Your task to perform on an android device: open app "LiveIn - Share Your Moment" (install if not already installed) Image 0: 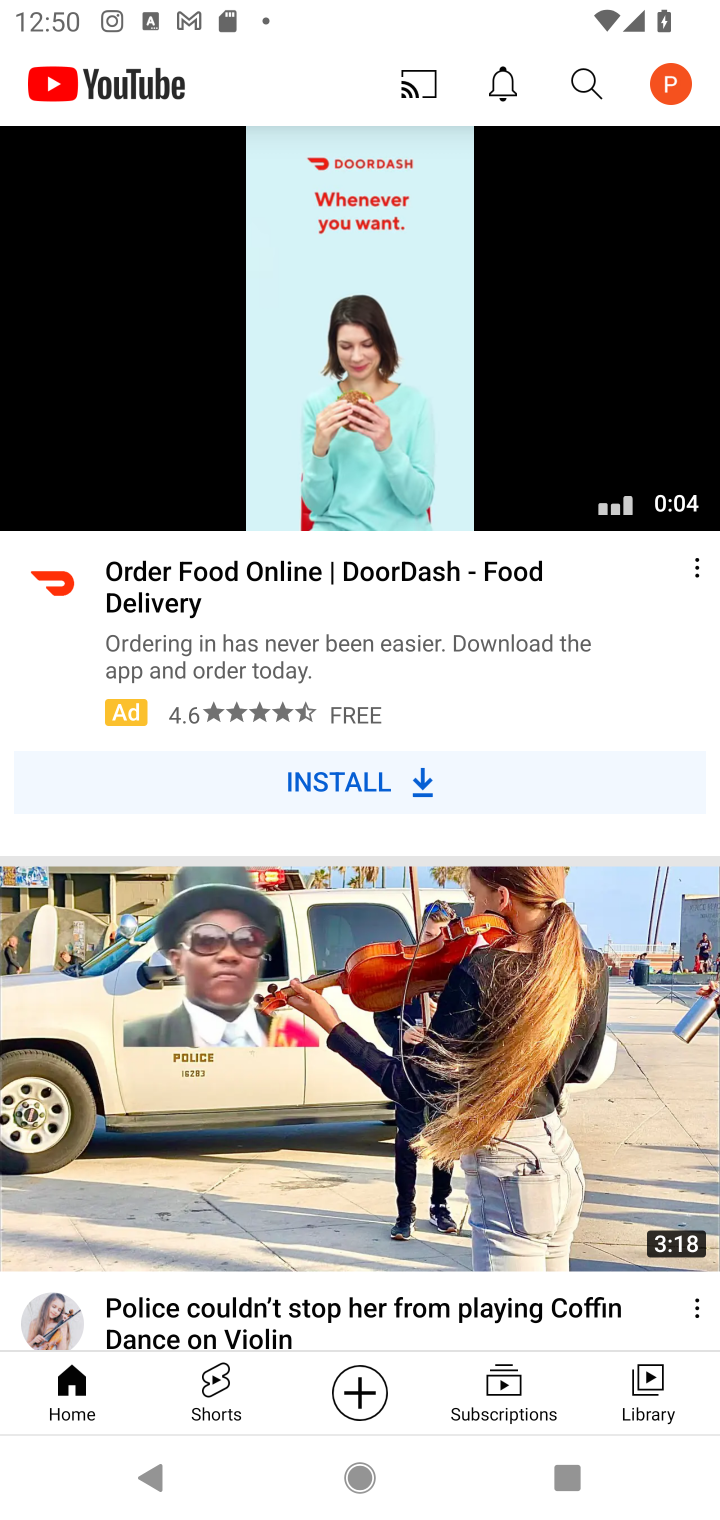
Step 0: press home button
Your task to perform on an android device: open app "LiveIn - Share Your Moment" (install if not already installed) Image 1: 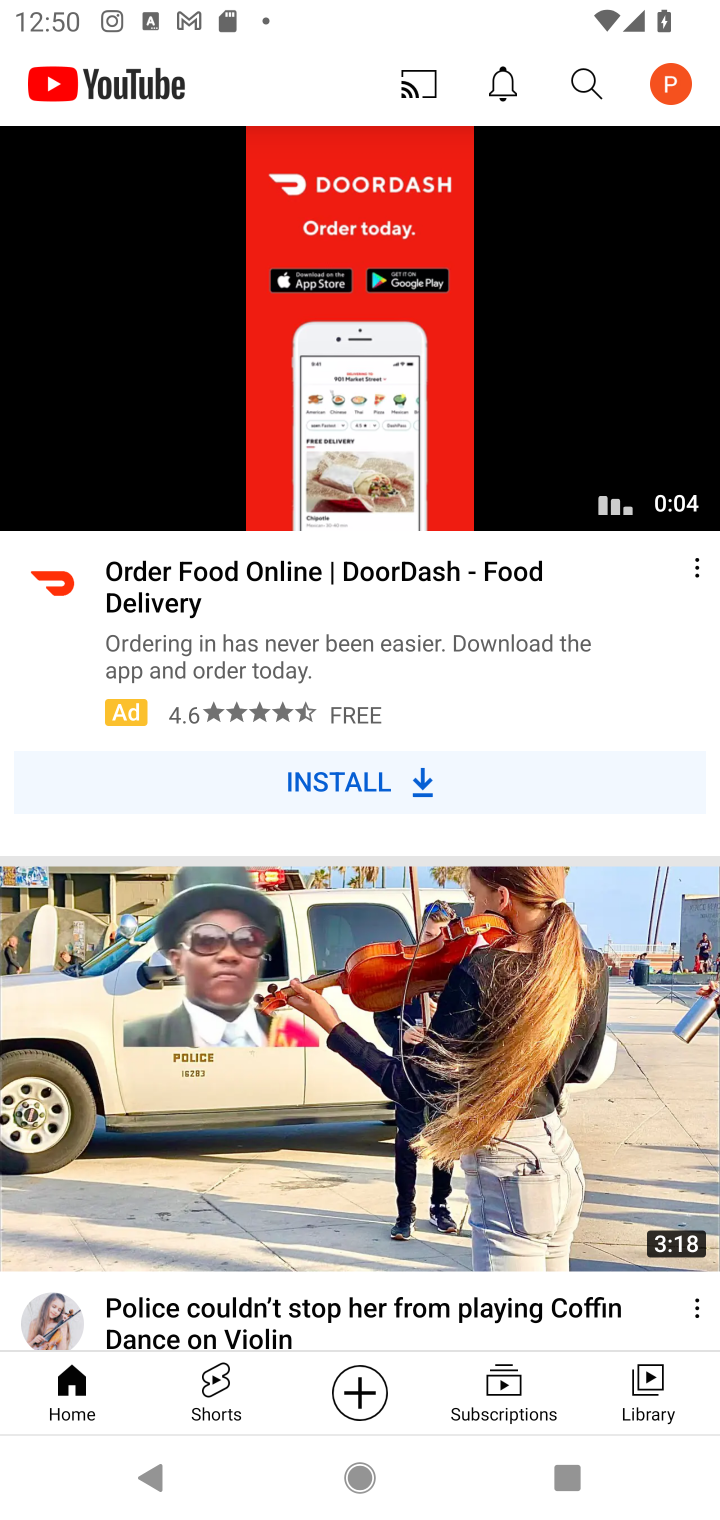
Step 1: press home button
Your task to perform on an android device: open app "LiveIn - Share Your Moment" (install if not already installed) Image 2: 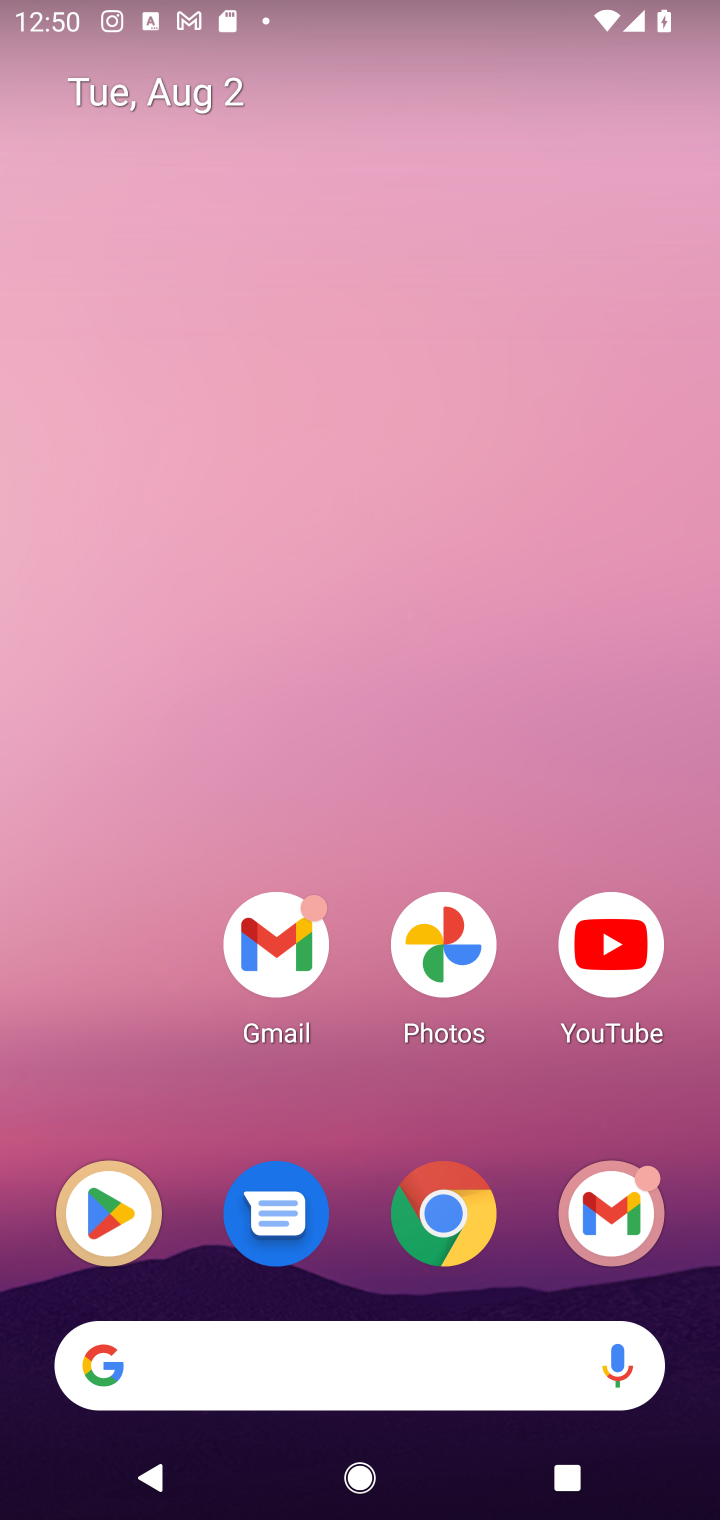
Step 2: click (88, 1206)
Your task to perform on an android device: open app "LiveIn - Share Your Moment" (install if not already installed) Image 3: 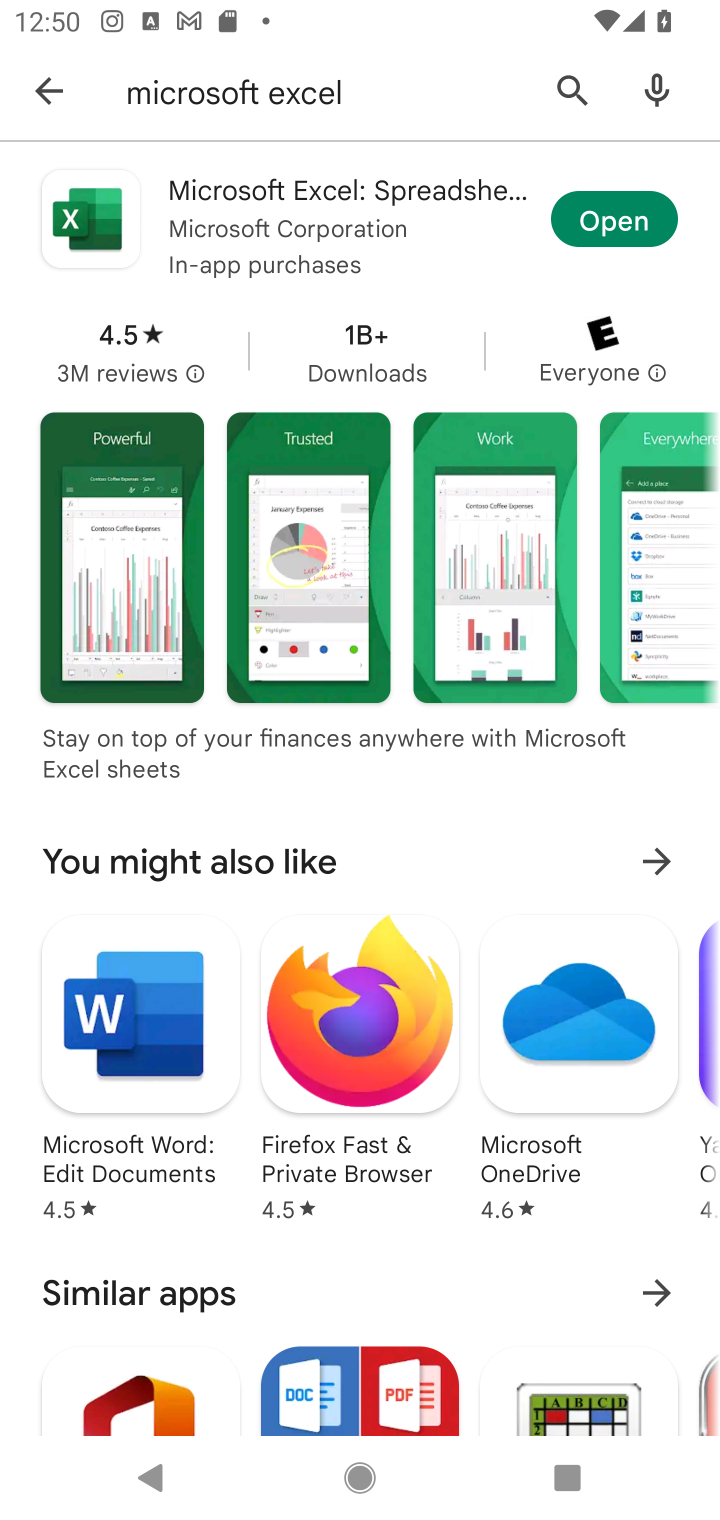
Step 3: click (33, 91)
Your task to perform on an android device: open app "LiveIn - Share Your Moment" (install if not already installed) Image 4: 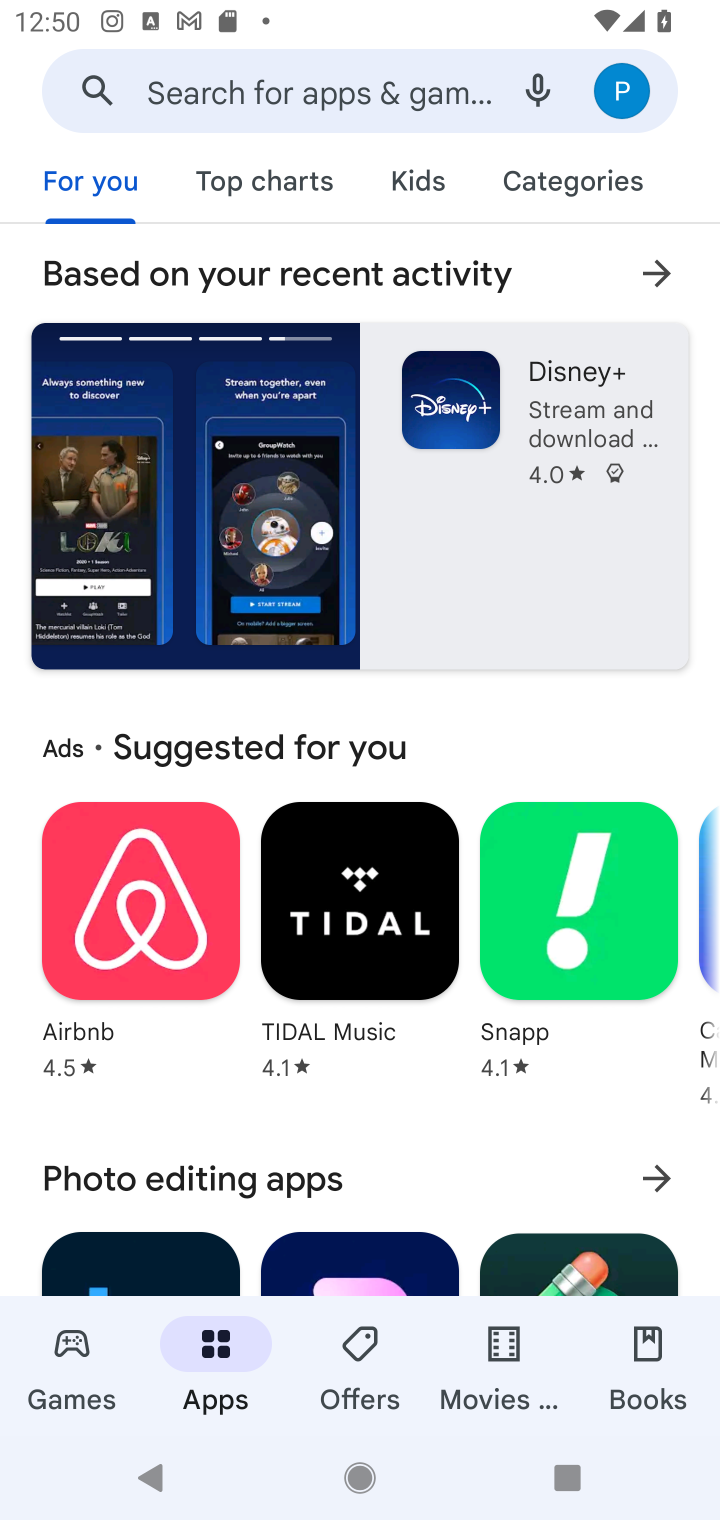
Step 4: click (267, 91)
Your task to perform on an android device: open app "LiveIn - Share Your Moment" (install if not already installed) Image 5: 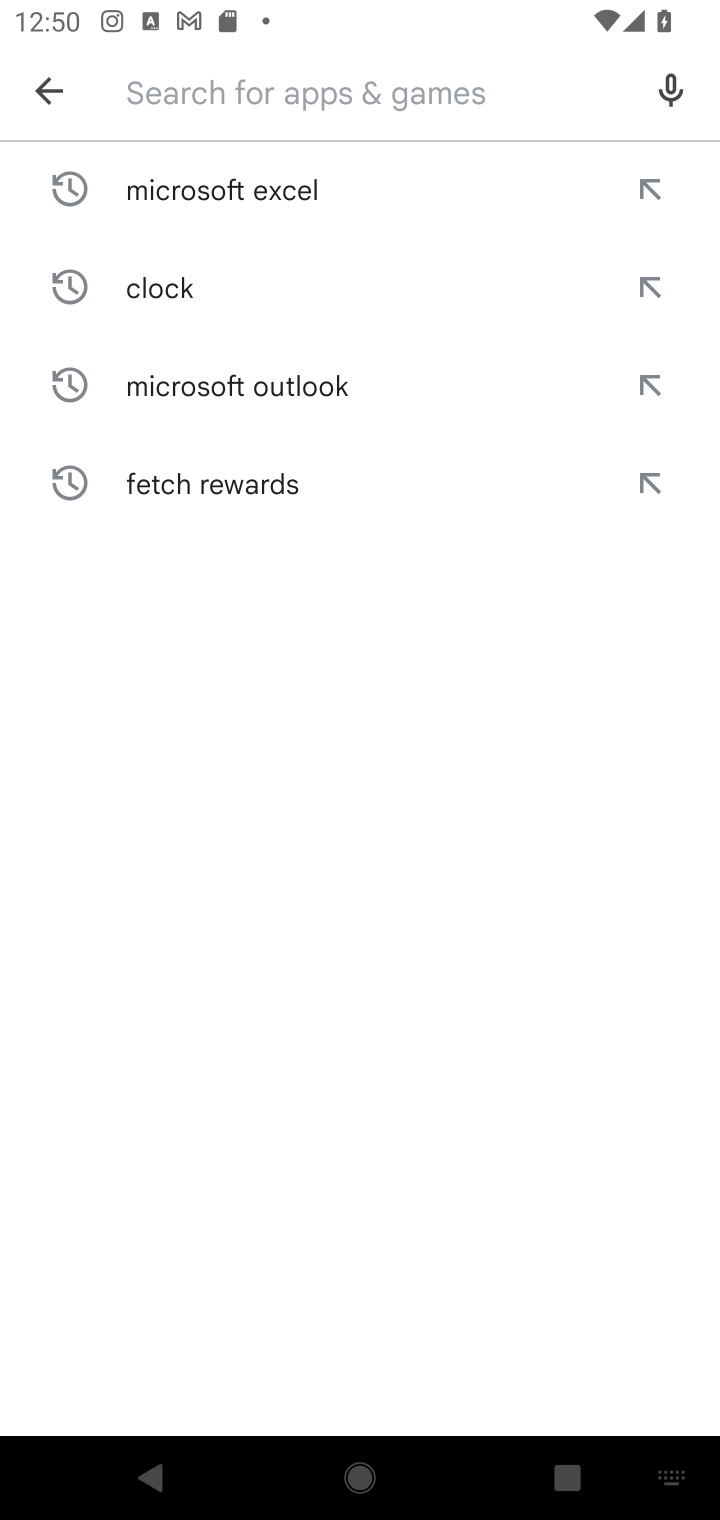
Step 5: type "LiveIn - Share Your Moment"
Your task to perform on an android device: open app "LiveIn - Share Your Moment" (install if not already installed) Image 6: 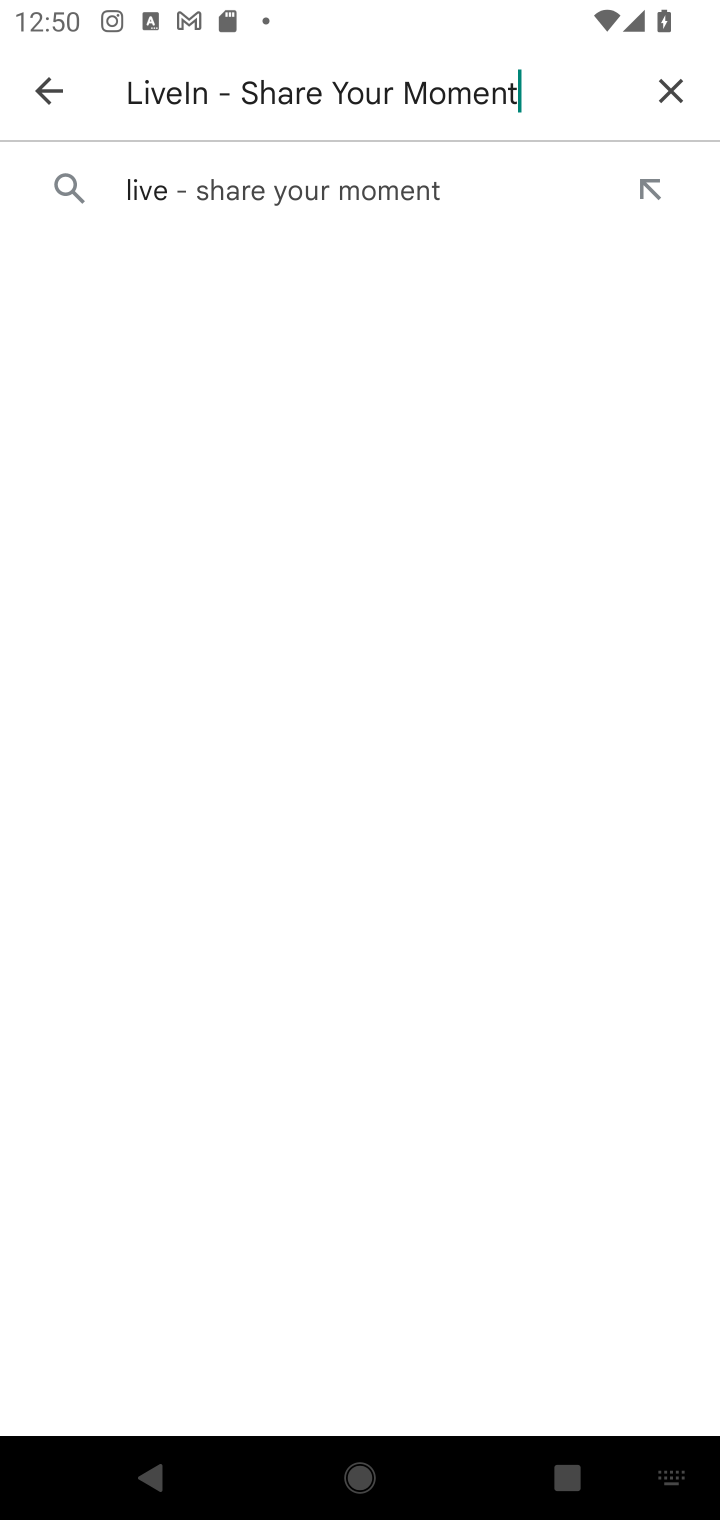
Step 6: click (311, 181)
Your task to perform on an android device: open app "LiveIn - Share Your Moment" (install if not already installed) Image 7: 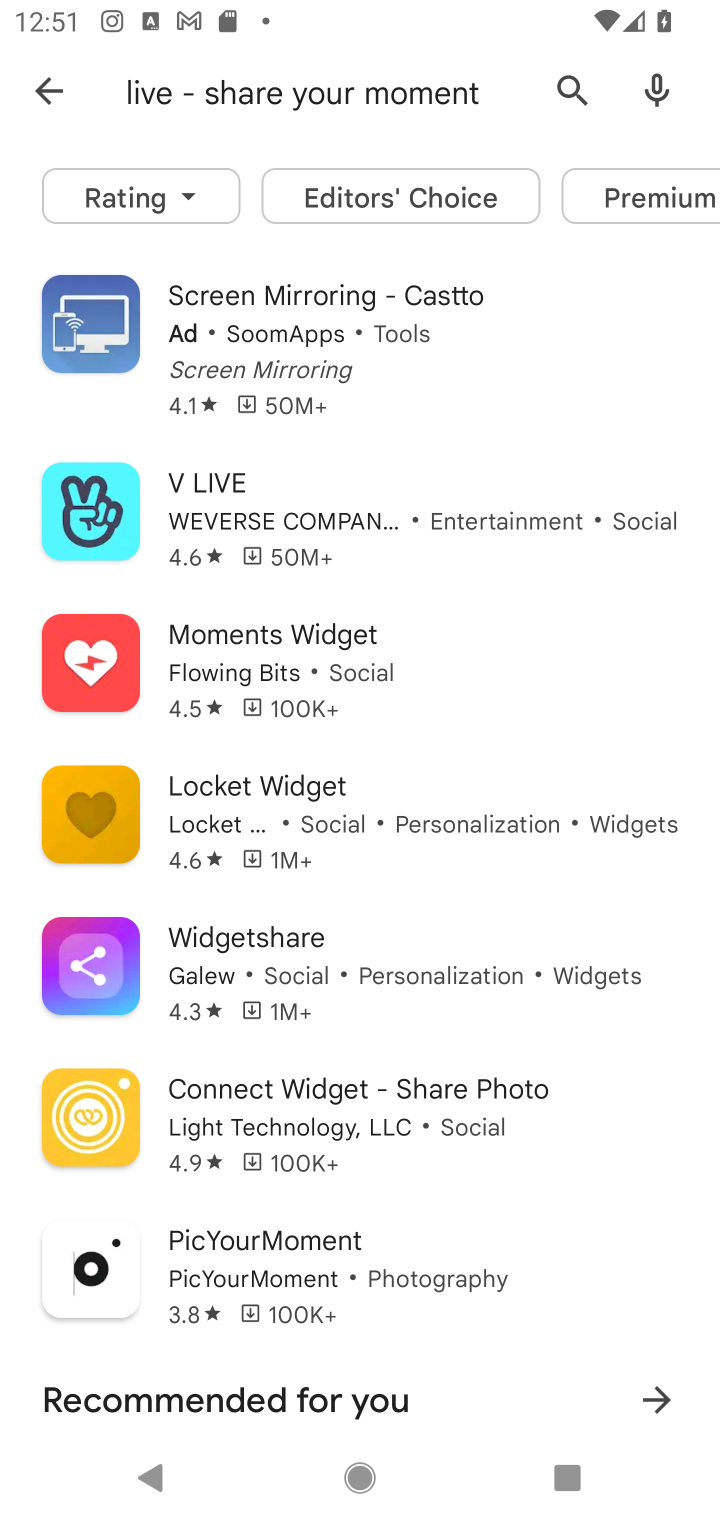
Step 7: task complete